Your task to perform on an android device: Open calendar and show me the fourth week of next month Image 0: 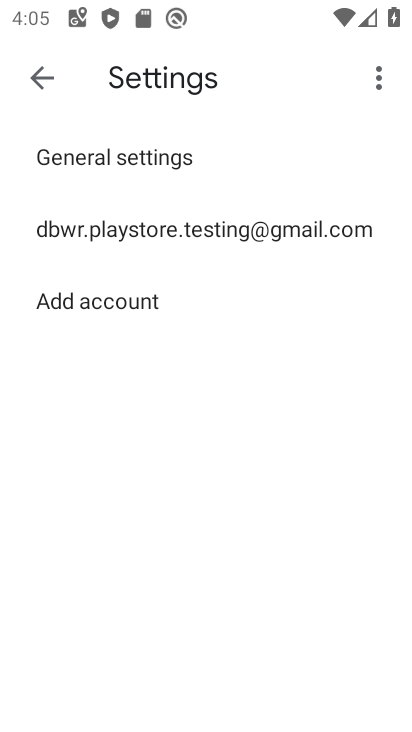
Step 0: press home button
Your task to perform on an android device: Open calendar and show me the fourth week of next month Image 1: 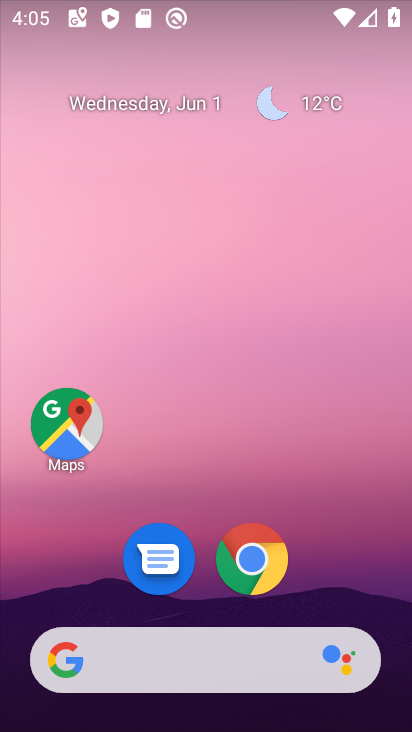
Step 1: drag from (335, 592) to (249, 0)
Your task to perform on an android device: Open calendar and show me the fourth week of next month Image 2: 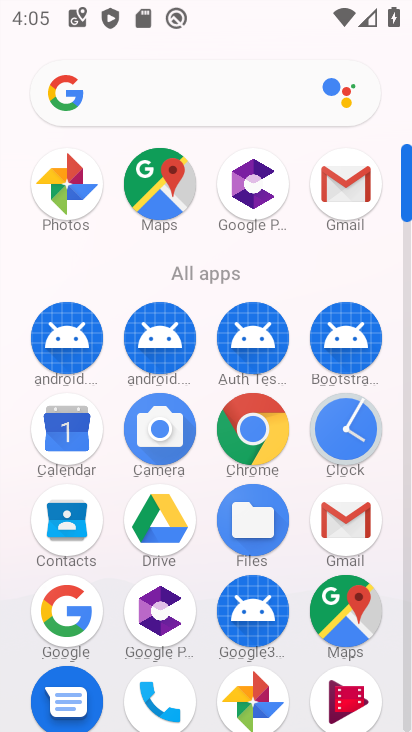
Step 2: click (56, 437)
Your task to perform on an android device: Open calendar and show me the fourth week of next month Image 3: 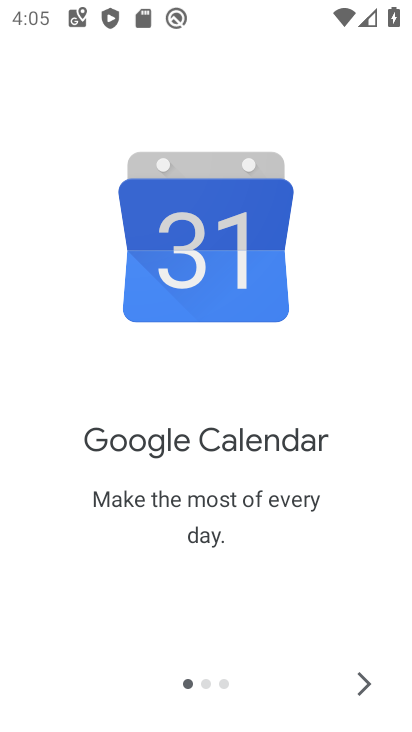
Step 3: click (368, 671)
Your task to perform on an android device: Open calendar and show me the fourth week of next month Image 4: 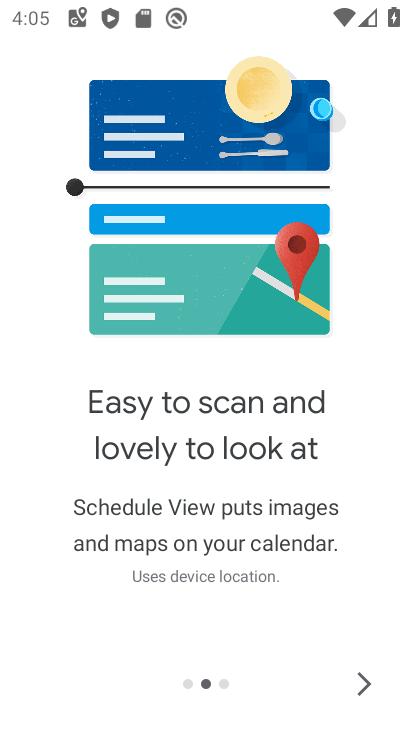
Step 4: click (358, 675)
Your task to perform on an android device: Open calendar and show me the fourth week of next month Image 5: 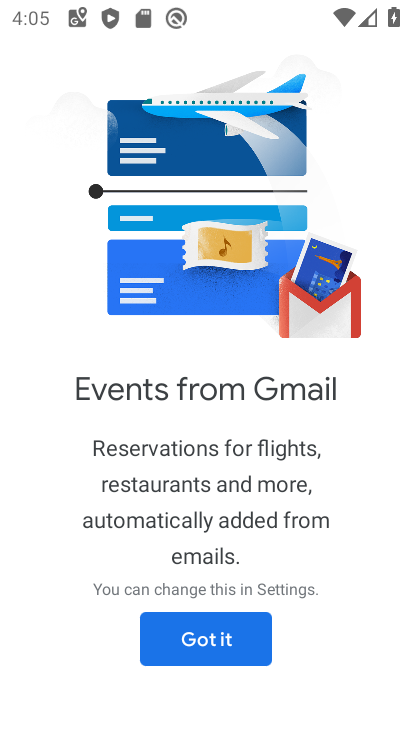
Step 5: click (197, 650)
Your task to perform on an android device: Open calendar and show me the fourth week of next month Image 6: 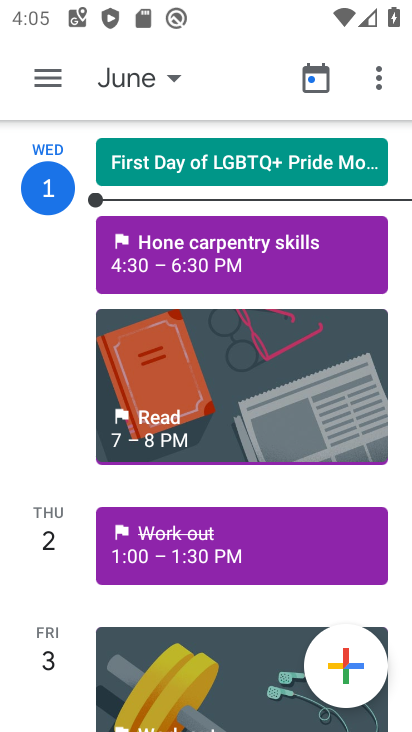
Step 6: click (126, 75)
Your task to perform on an android device: Open calendar and show me the fourth week of next month Image 7: 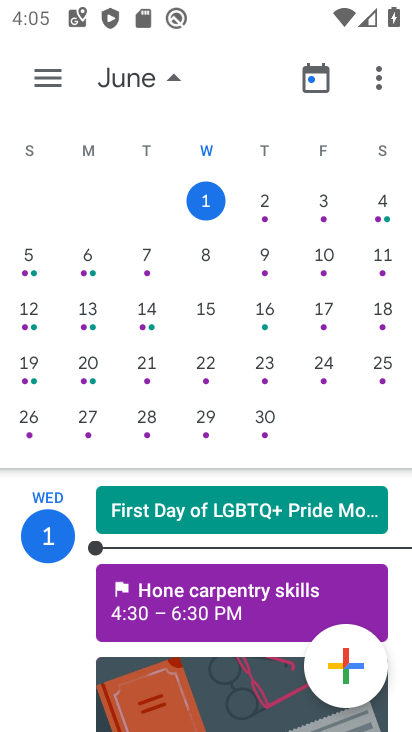
Step 7: drag from (397, 379) to (29, 360)
Your task to perform on an android device: Open calendar and show me the fourth week of next month Image 8: 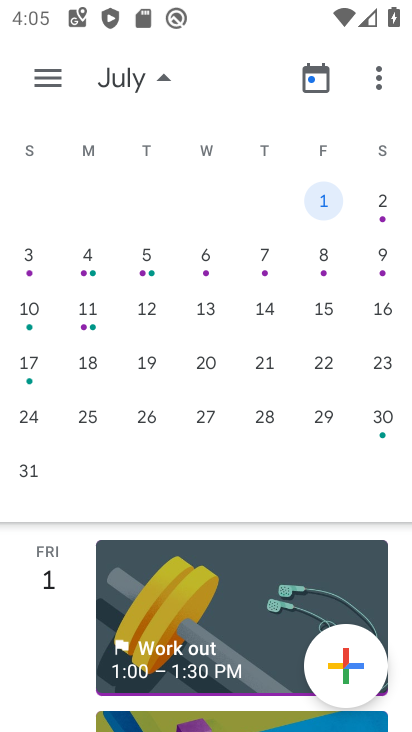
Step 8: click (25, 373)
Your task to perform on an android device: Open calendar and show me the fourth week of next month Image 9: 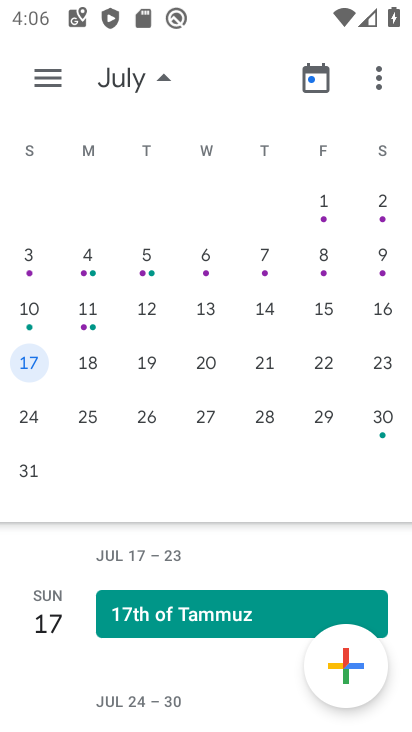
Step 9: task complete